Your task to perform on an android device: turn off wifi Image 0: 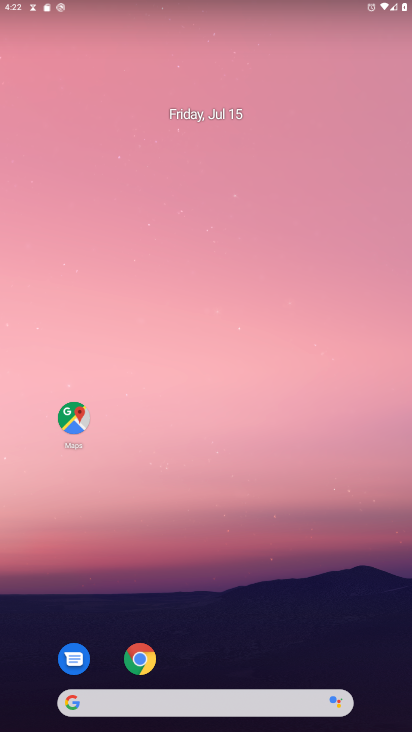
Step 0: drag from (271, 715) to (229, 23)
Your task to perform on an android device: turn off wifi Image 1: 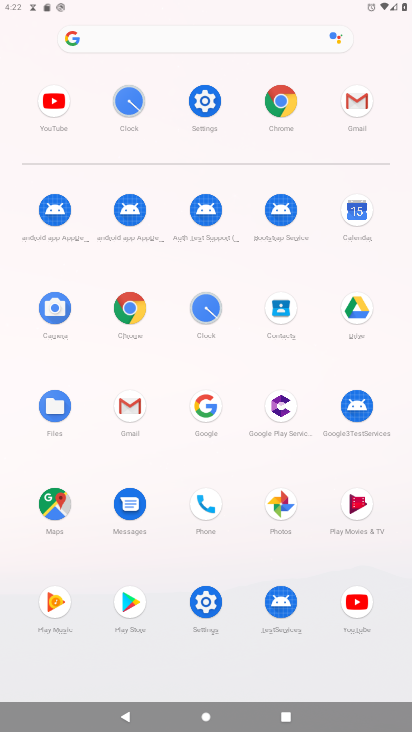
Step 1: click (207, 108)
Your task to perform on an android device: turn off wifi Image 2: 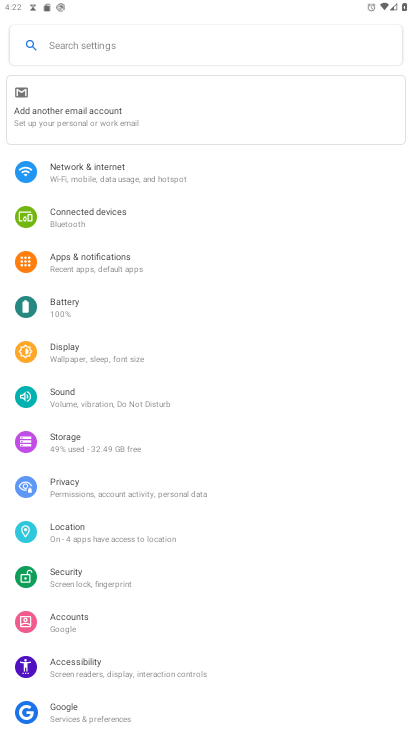
Step 2: click (72, 169)
Your task to perform on an android device: turn off wifi Image 3: 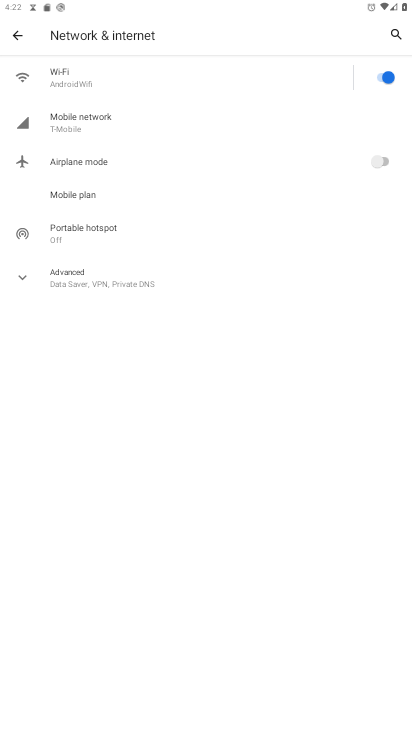
Step 3: click (135, 71)
Your task to perform on an android device: turn off wifi Image 4: 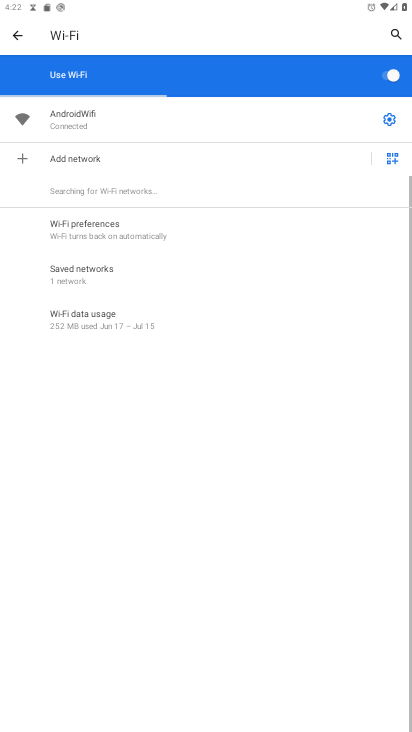
Step 4: click (390, 77)
Your task to perform on an android device: turn off wifi Image 5: 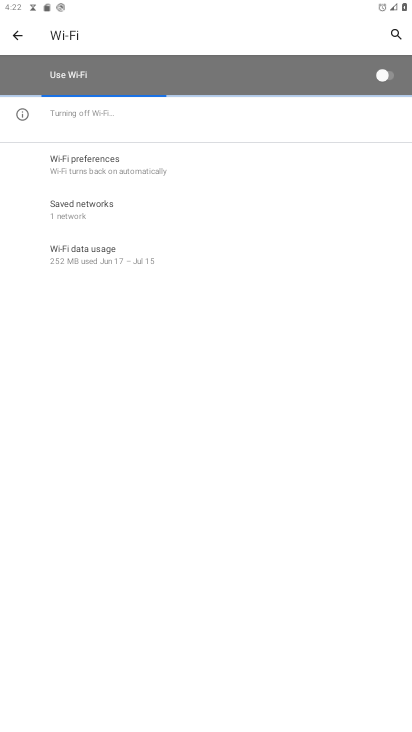
Step 5: task complete